Your task to perform on an android device: open device folders in google photos Image 0: 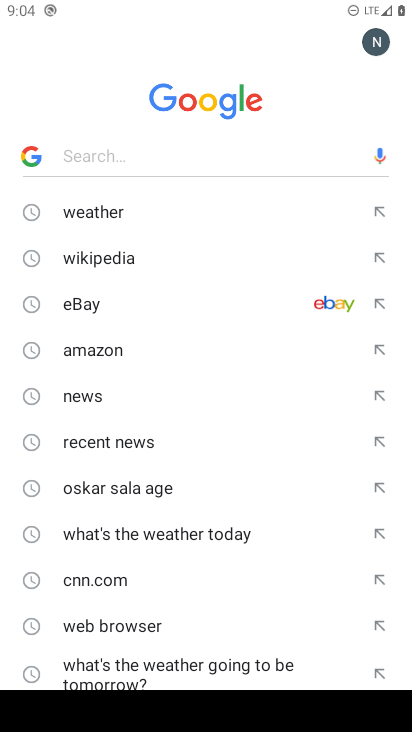
Step 0: press home button
Your task to perform on an android device: open device folders in google photos Image 1: 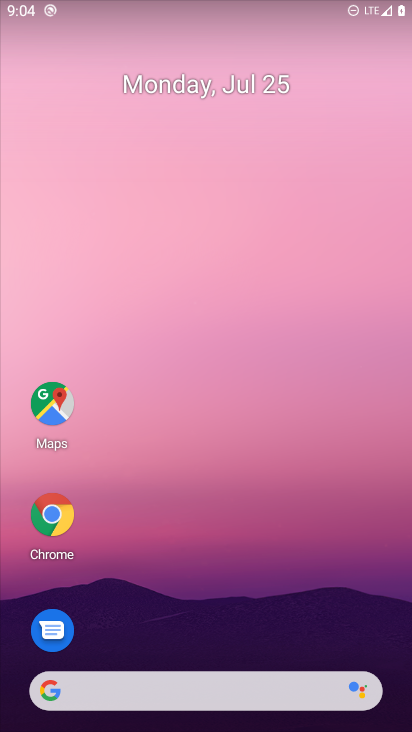
Step 1: drag from (30, 714) to (175, 343)
Your task to perform on an android device: open device folders in google photos Image 2: 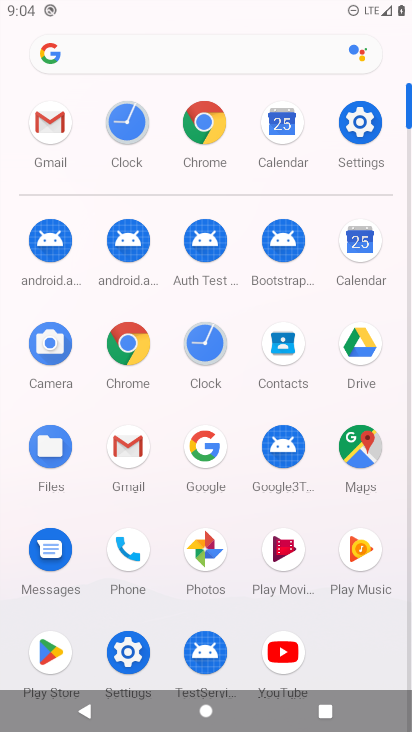
Step 2: click (240, 549)
Your task to perform on an android device: open device folders in google photos Image 3: 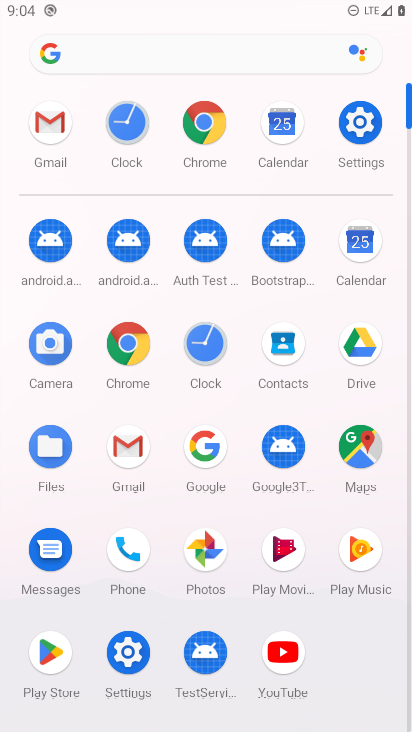
Step 3: click (209, 552)
Your task to perform on an android device: open device folders in google photos Image 4: 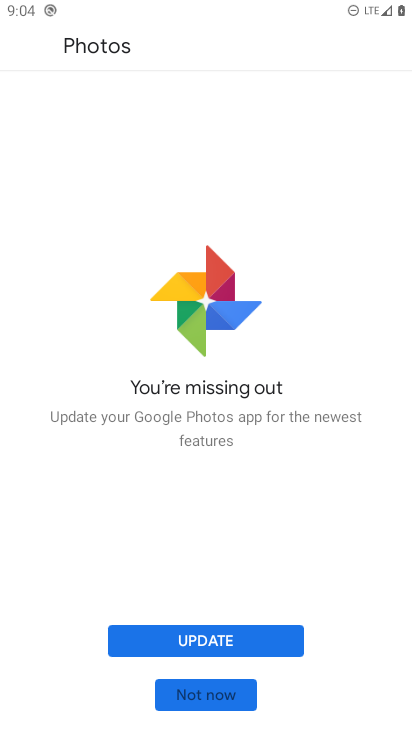
Step 4: click (195, 683)
Your task to perform on an android device: open device folders in google photos Image 5: 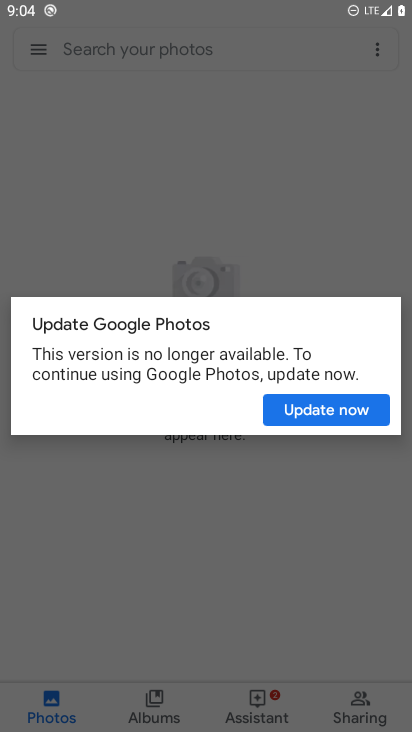
Step 5: click (364, 413)
Your task to perform on an android device: open device folders in google photos Image 6: 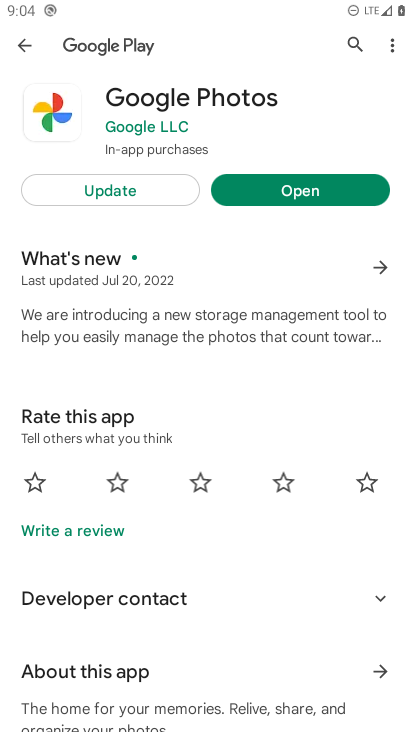
Step 6: click (262, 186)
Your task to perform on an android device: open device folders in google photos Image 7: 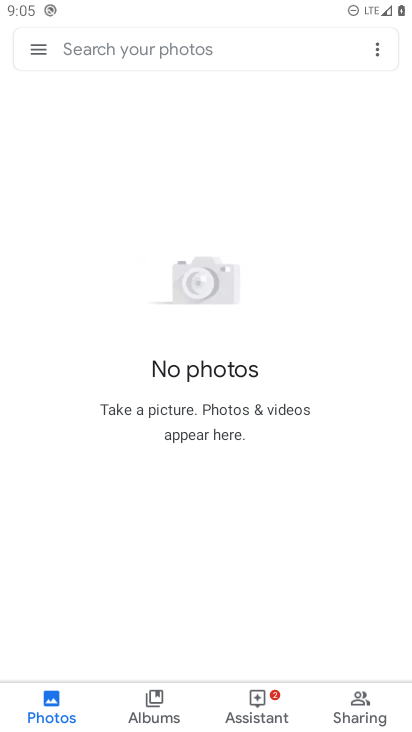
Step 7: click (45, 51)
Your task to perform on an android device: open device folders in google photos Image 8: 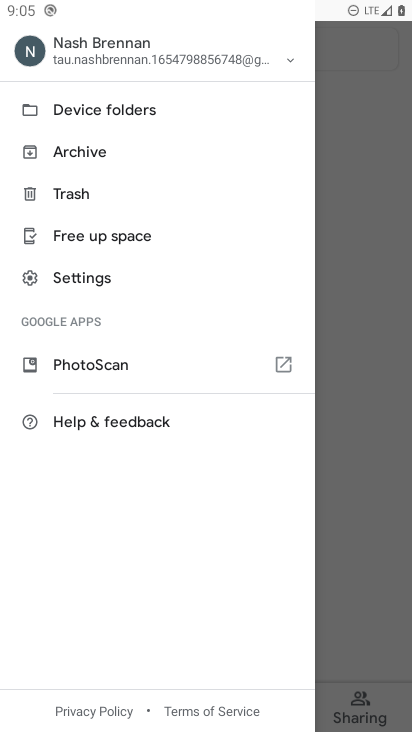
Step 8: click (81, 120)
Your task to perform on an android device: open device folders in google photos Image 9: 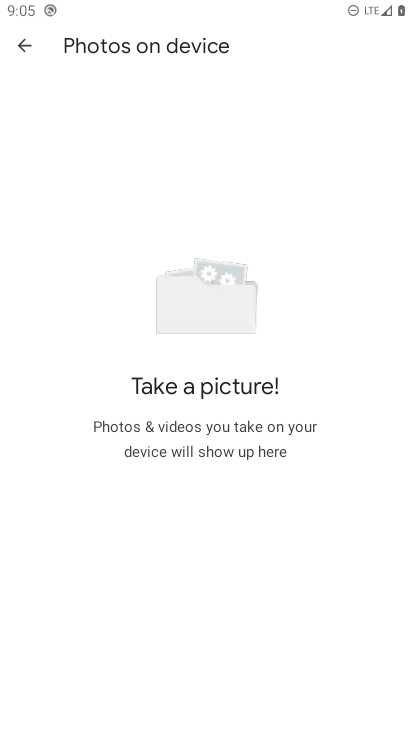
Step 9: task complete